Your task to perform on an android device: set default search engine in the chrome app Image 0: 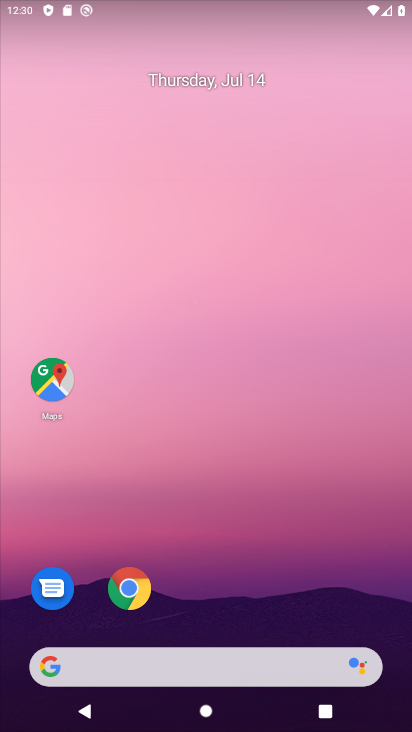
Step 0: drag from (169, 592) to (193, 273)
Your task to perform on an android device: set default search engine in the chrome app Image 1: 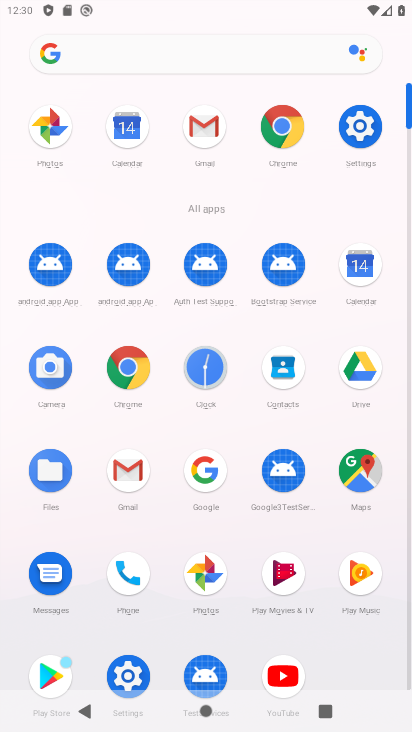
Step 1: click (266, 128)
Your task to perform on an android device: set default search engine in the chrome app Image 2: 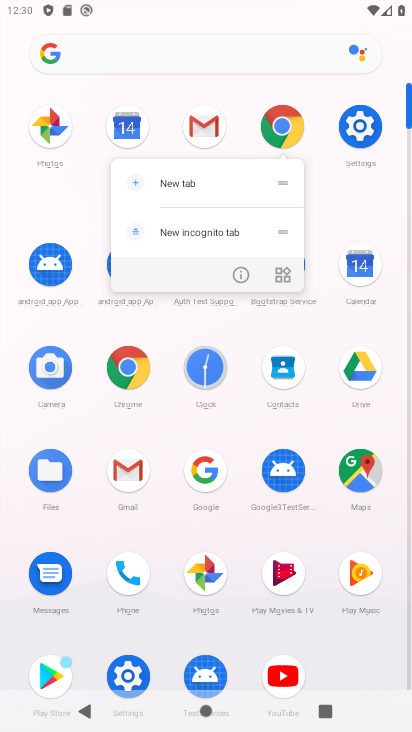
Step 2: click (288, 114)
Your task to perform on an android device: set default search engine in the chrome app Image 3: 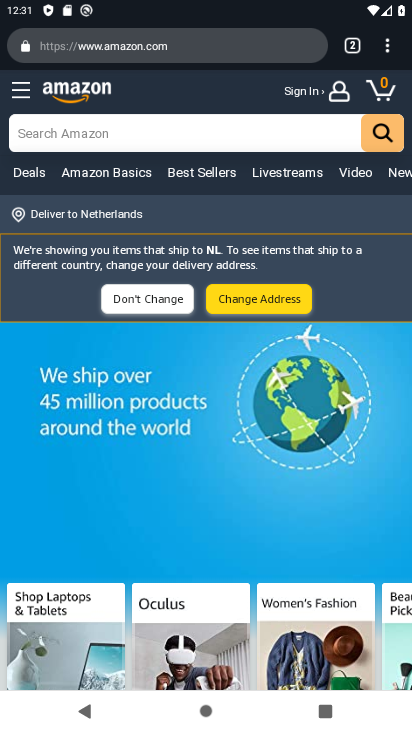
Step 3: click (391, 37)
Your task to perform on an android device: set default search engine in the chrome app Image 4: 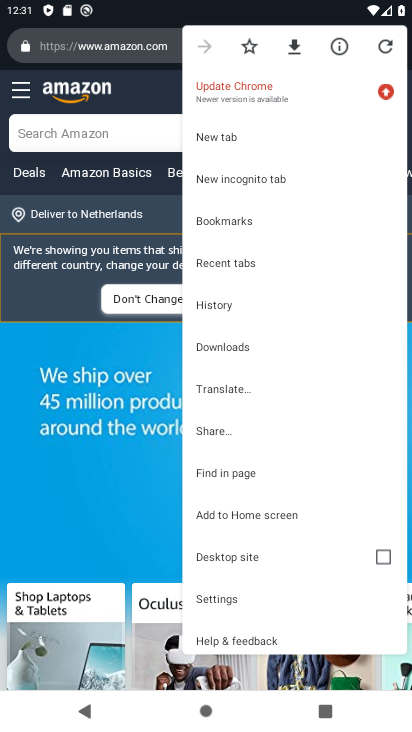
Step 4: click (242, 607)
Your task to perform on an android device: set default search engine in the chrome app Image 5: 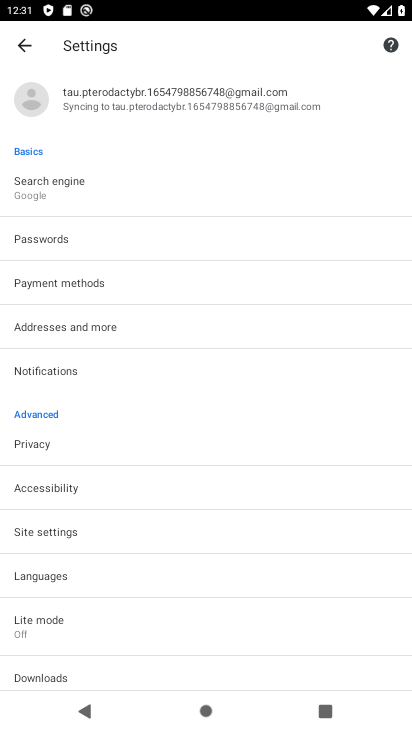
Step 5: click (54, 188)
Your task to perform on an android device: set default search engine in the chrome app Image 6: 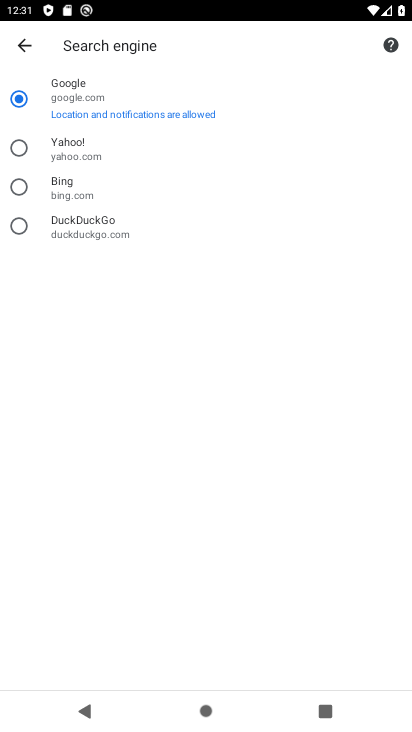
Step 6: task complete